Your task to perform on an android device: Open ESPN.com Image 0: 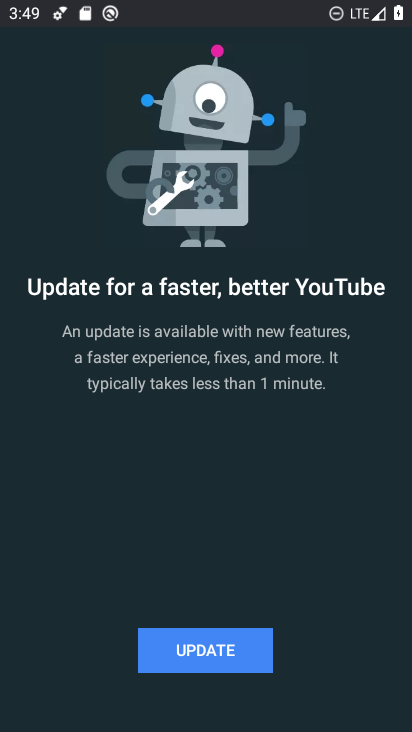
Step 0: press home button
Your task to perform on an android device: Open ESPN.com Image 1: 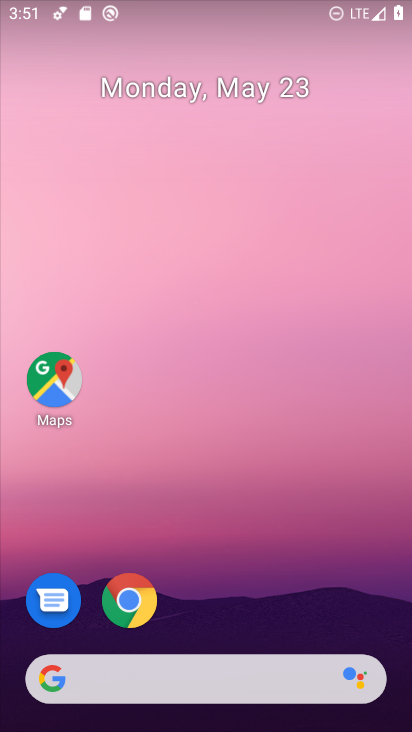
Step 1: click (133, 600)
Your task to perform on an android device: Open ESPN.com Image 2: 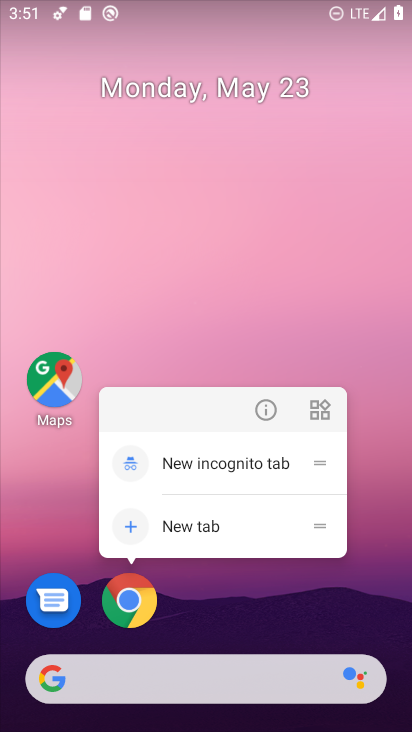
Step 2: click (133, 600)
Your task to perform on an android device: Open ESPN.com Image 3: 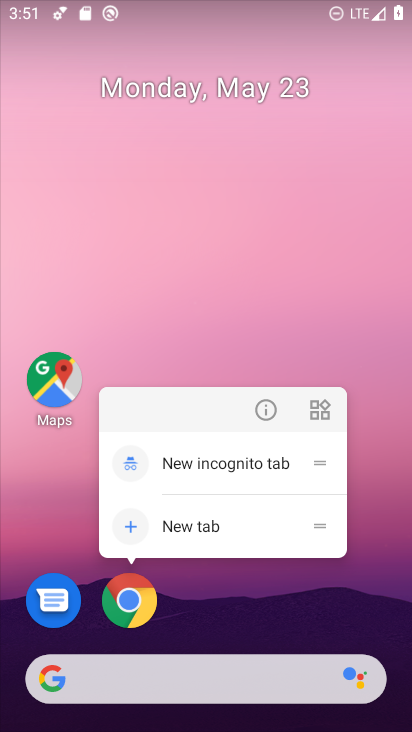
Step 3: click (209, 622)
Your task to perform on an android device: Open ESPN.com Image 4: 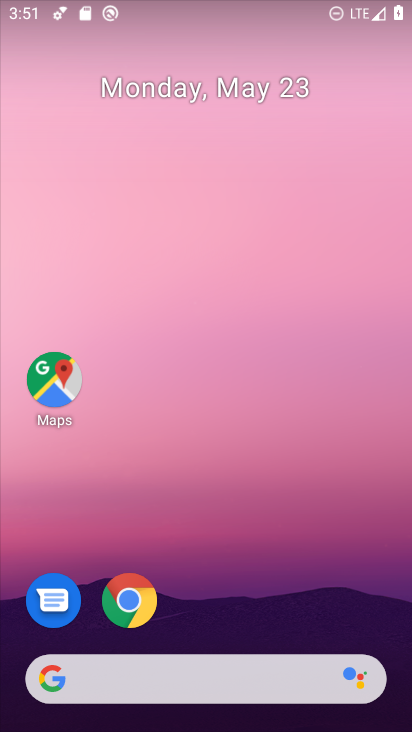
Step 4: click (133, 605)
Your task to perform on an android device: Open ESPN.com Image 5: 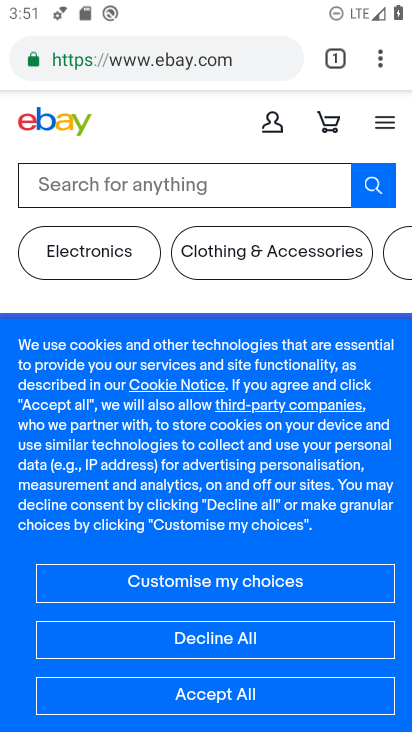
Step 5: click (126, 64)
Your task to perform on an android device: Open ESPN.com Image 6: 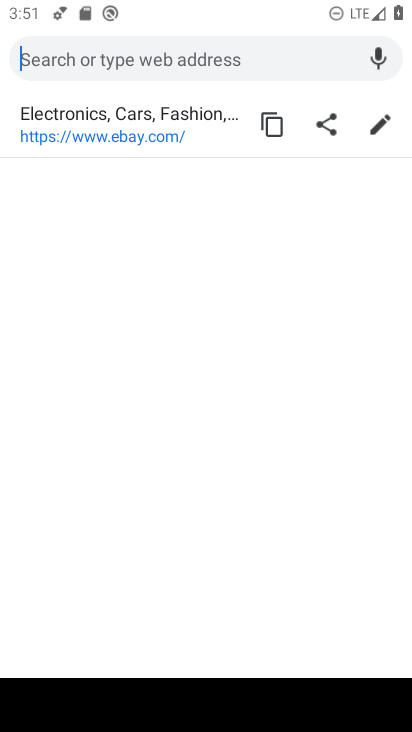
Step 6: type "espn.com"
Your task to perform on an android device: Open ESPN.com Image 7: 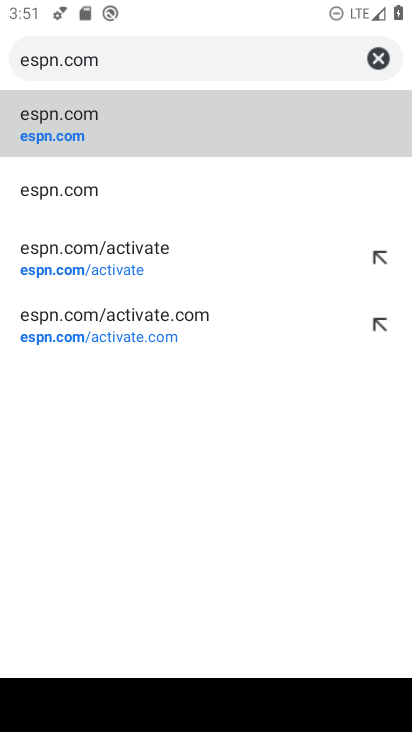
Step 7: click (47, 138)
Your task to perform on an android device: Open ESPN.com Image 8: 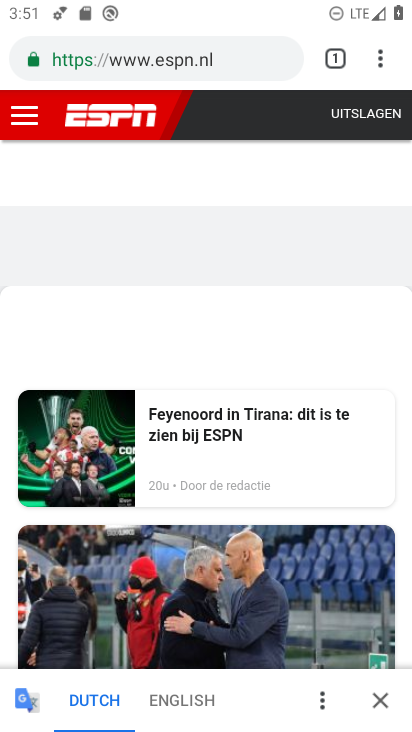
Step 8: task complete